Your task to perform on an android device: Look up the best rated kitchen knives on Amazon. Image 0: 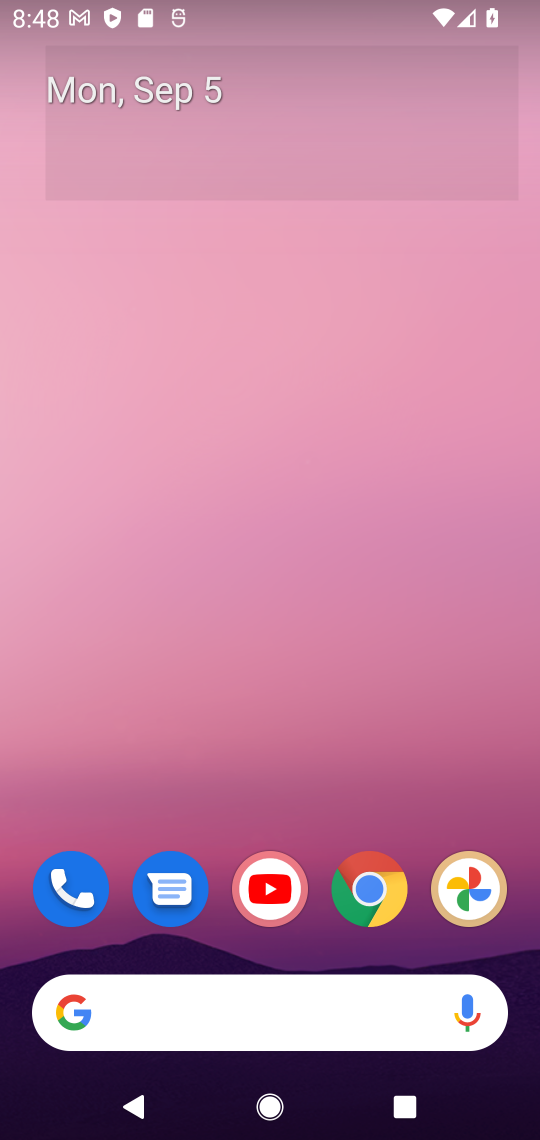
Step 0: click (251, 1037)
Your task to perform on an android device: Look up the best rated kitchen knives on Amazon. Image 1: 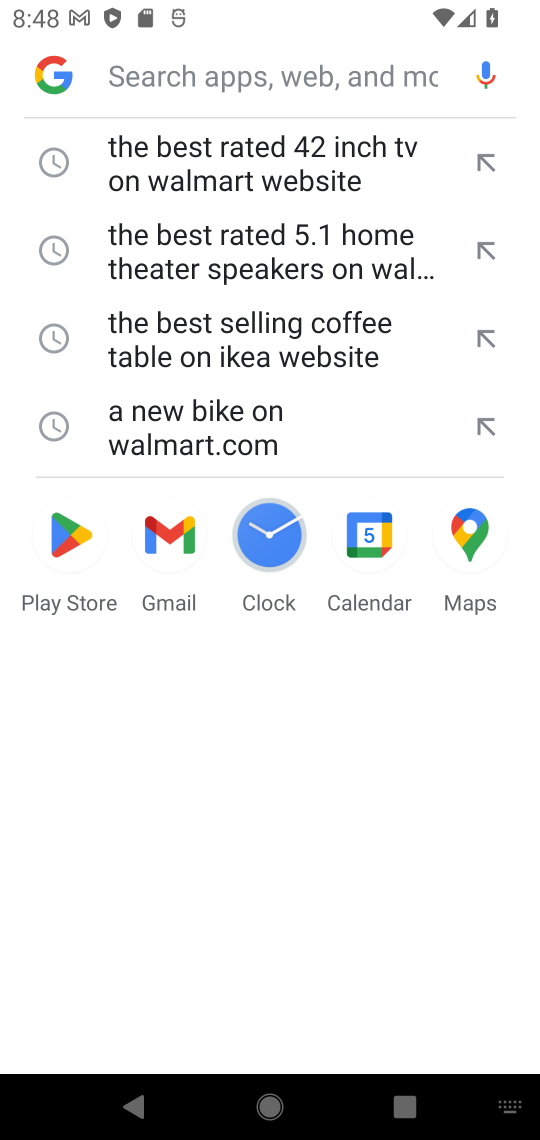
Step 1: type "the best rated kitchen knives on Amazon"
Your task to perform on an android device: Look up the best rated kitchen knives on Amazon. Image 2: 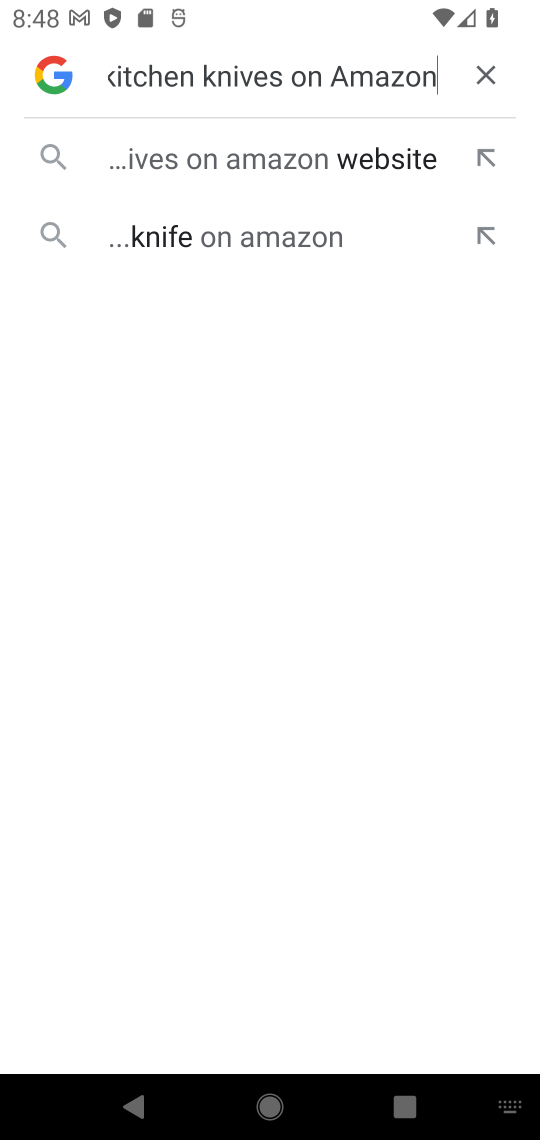
Step 2: click (212, 230)
Your task to perform on an android device: Look up the best rated kitchen knives on Amazon. Image 3: 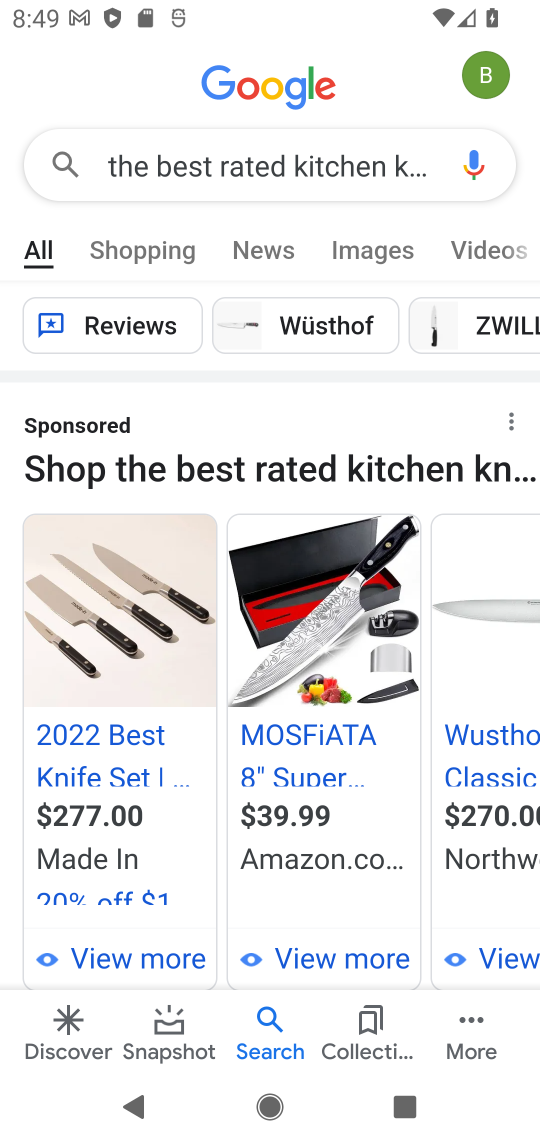
Step 3: click (410, 17)
Your task to perform on an android device: Look up the best rated kitchen knives on Amazon. Image 4: 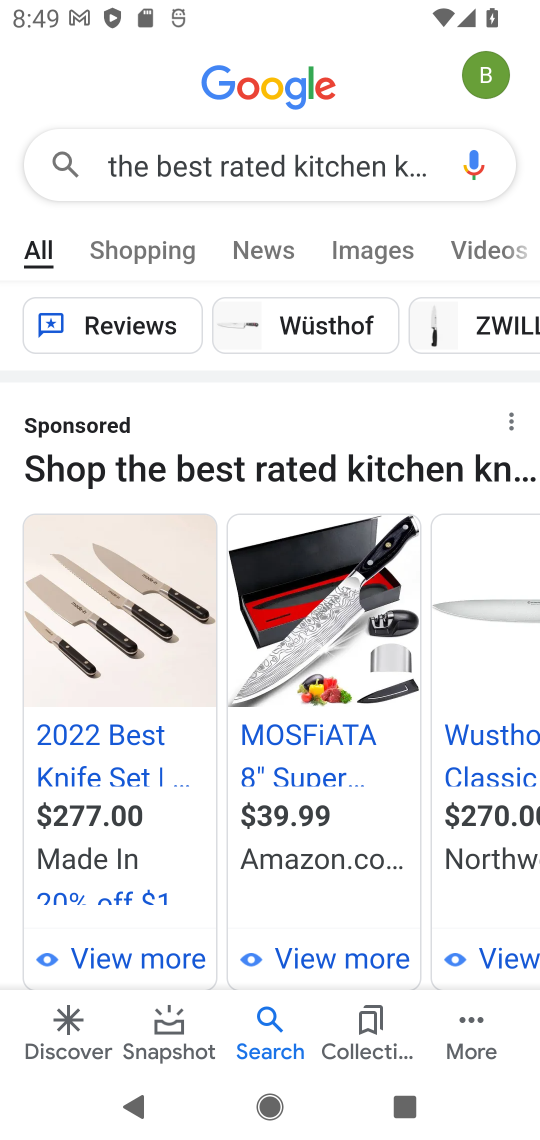
Step 4: task complete